Your task to perform on an android device: open wifi settings Image 0: 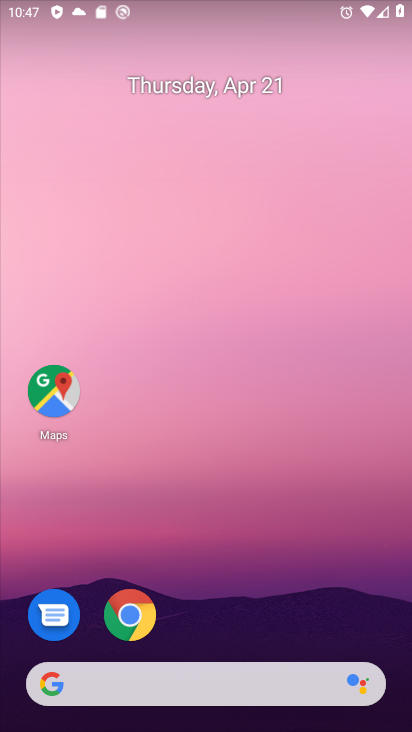
Step 0: press home button
Your task to perform on an android device: open wifi settings Image 1: 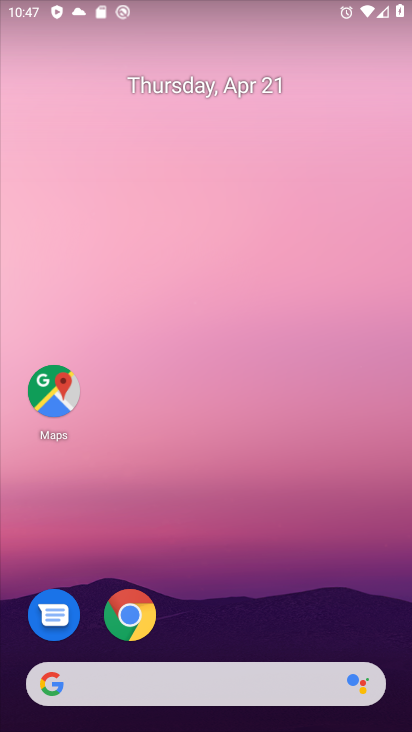
Step 1: drag from (226, 630) to (291, 89)
Your task to perform on an android device: open wifi settings Image 2: 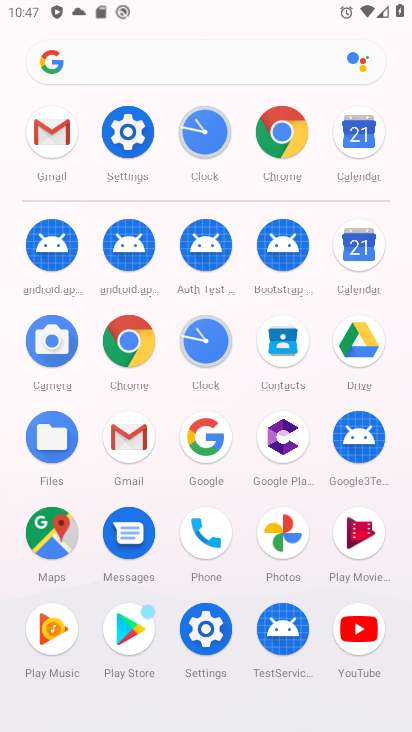
Step 2: click (208, 624)
Your task to perform on an android device: open wifi settings Image 3: 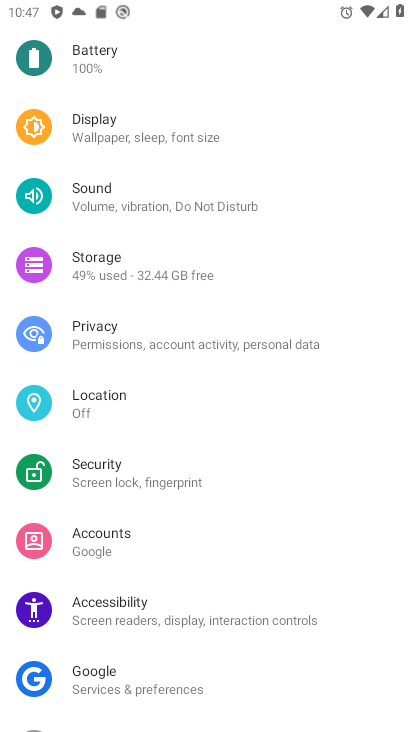
Step 3: drag from (168, 97) to (150, 669)
Your task to perform on an android device: open wifi settings Image 4: 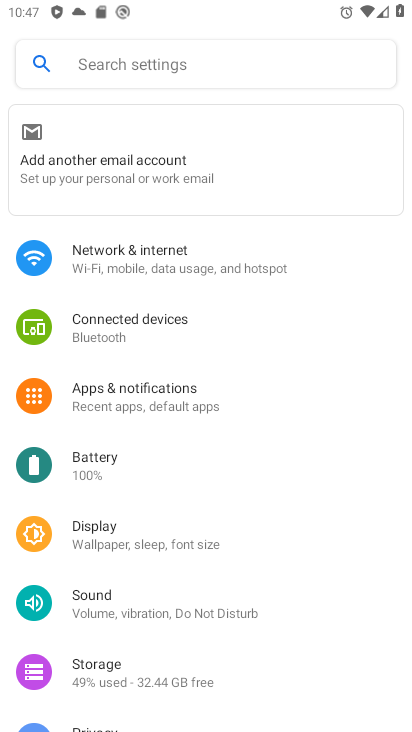
Step 4: click (191, 253)
Your task to perform on an android device: open wifi settings Image 5: 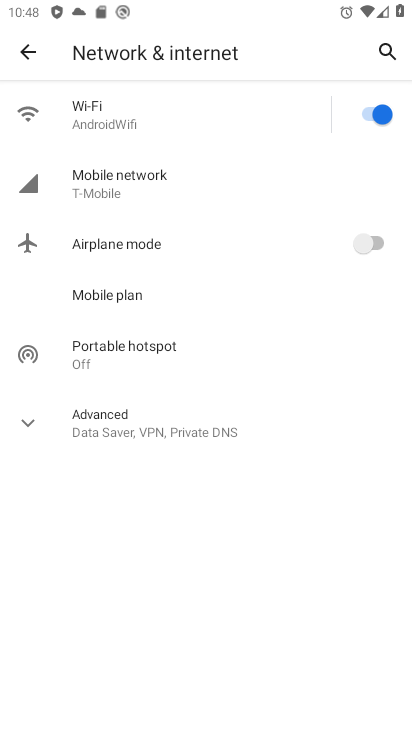
Step 5: click (162, 116)
Your task to perform on an android device: open wifi settings Image 6: 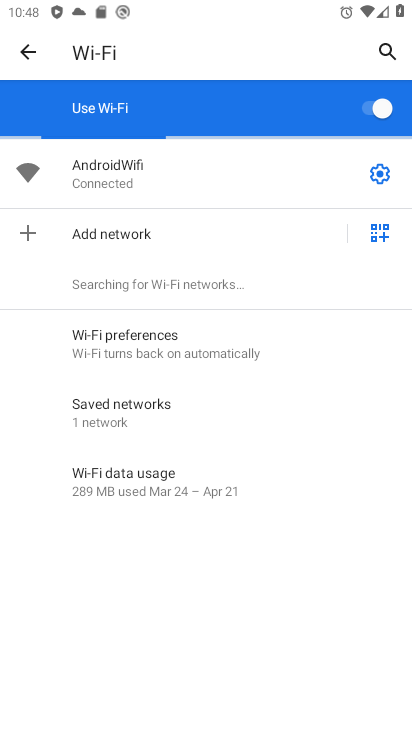
Step 6: task complete